Your task to perform on an android device: Is it going to rain tomorrow? Image 0: 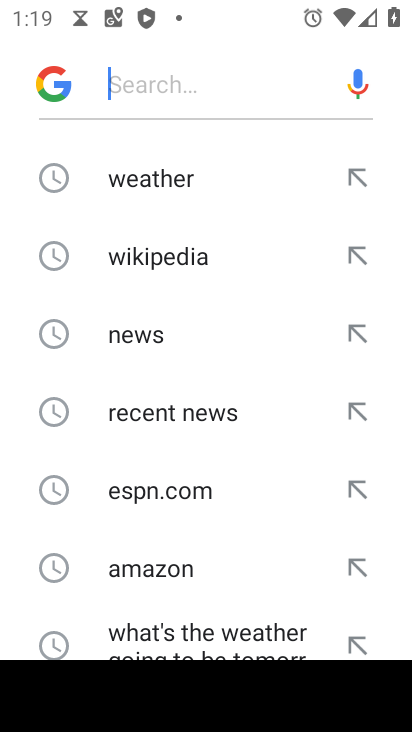
Step 0: press home button
Your task to perform on an android device: Is it going to rain tomorrow? Image 1: 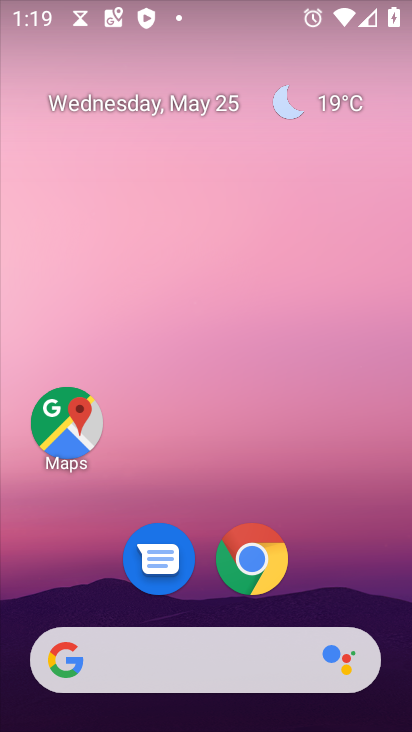
Step 1: click (314, 110)
Your task to perform on an android device: Is it going to rain tomorrow? Image 2: 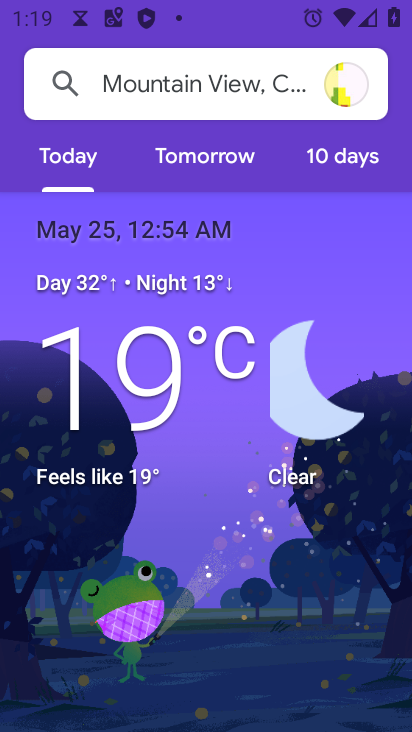
Step 2: click (226, 149)
Your task to perform on an android device: Is it going to rain tomorrow? Image 3: 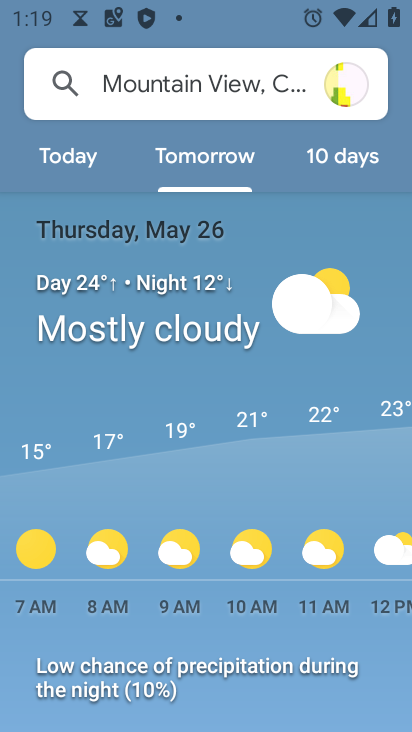
Step 3: task complete